Your task to perform on an android device: change the clock style Image 0: 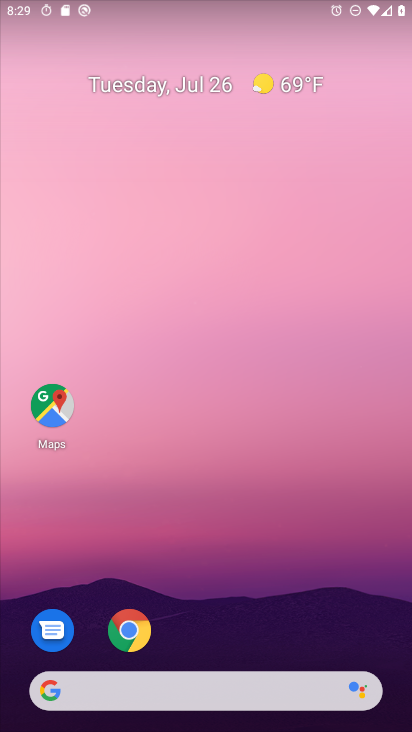
Step 0: drag from (286, 630) to (302, 190)
Your task to perform on an android device: change the clock style Image 1: 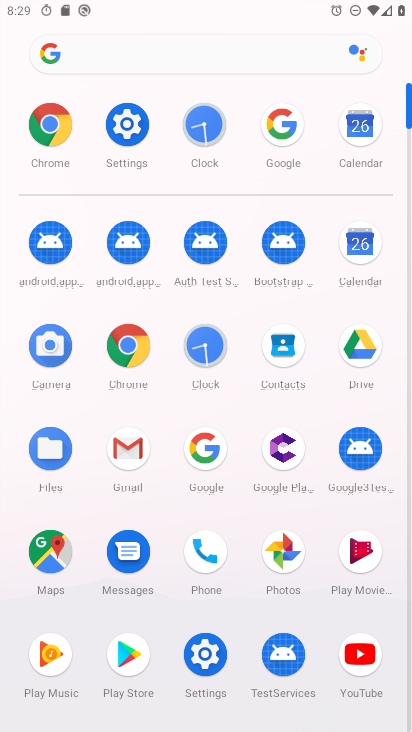
Step 1: click (212, 351)
Your task to perform on an android device: change the clock style Image 2: 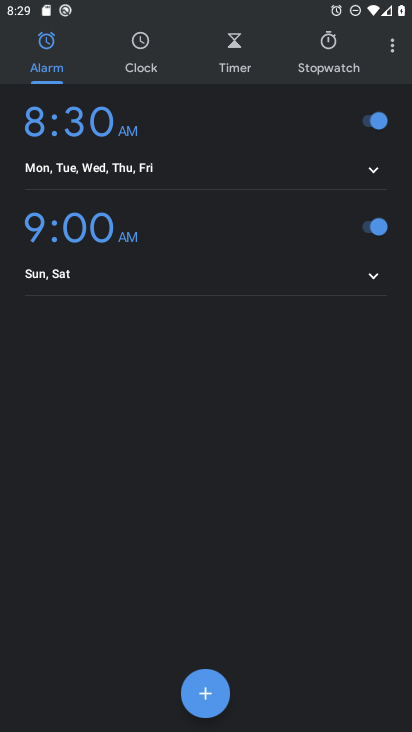
Step 2: click (397, 49)
Your task to perform on an android device: change the clock style Image 3: 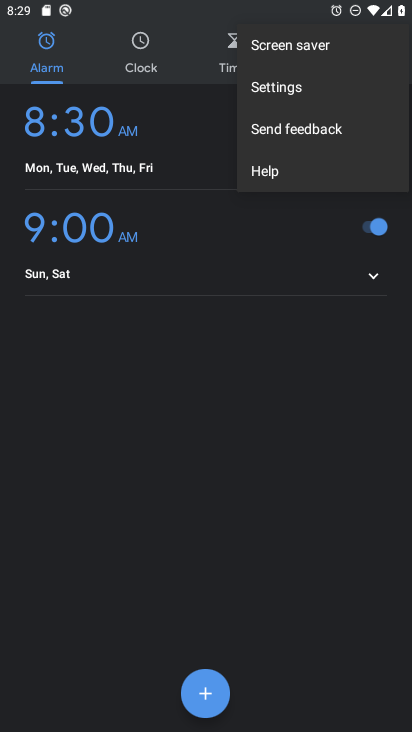
Step 3: click (264, 90)
Your task to perform on an android device: change the clock style Image 4: 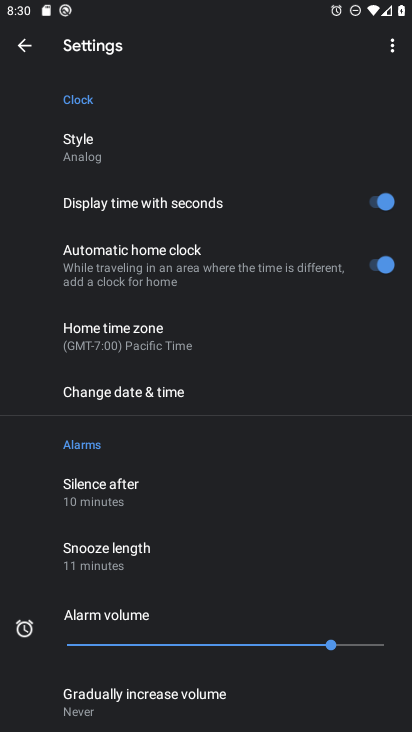
Step 4: click (172, 144)
Your task to perform on an android device: change the clock style Image 5: 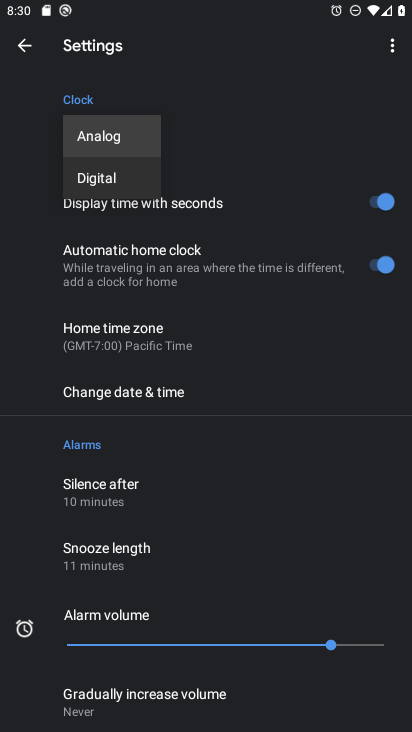
Step 5: click (123, 178)
Your task to perform on an android device: change the clock style Image 6: 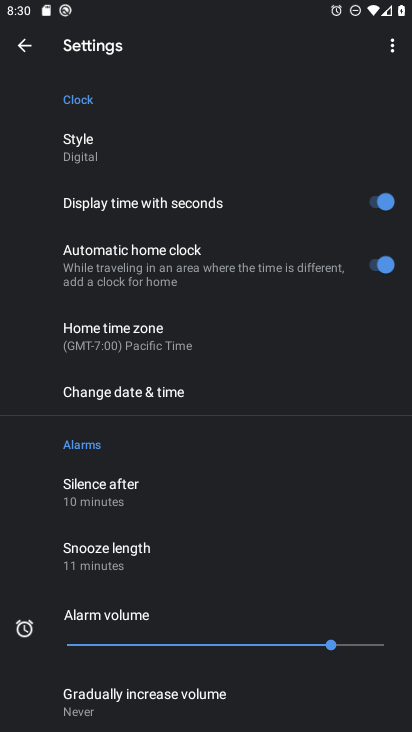
Step 6: task complete